Your task to perform on an android device: open a bookmark in the chrome app Image 0: 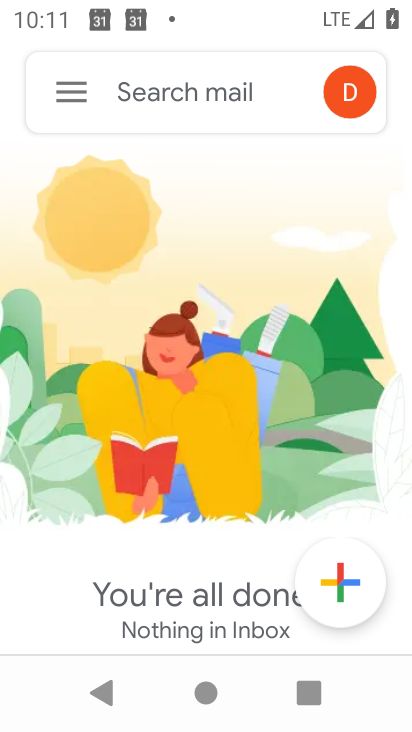
Step 0: press home button
Your task to perform on an android device: open a bookmark in the chrome app Image 1: 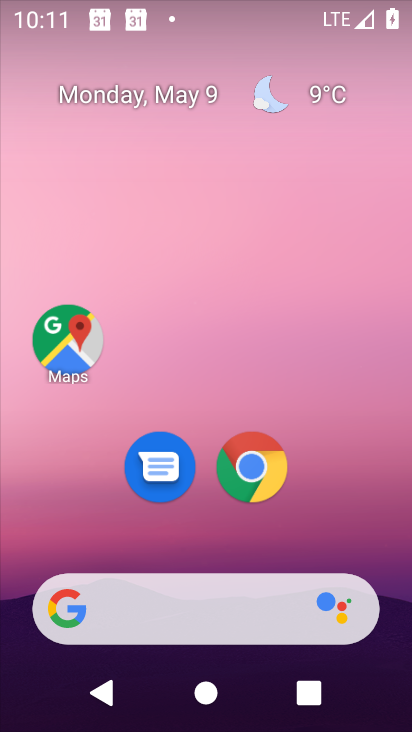
Step 1: click (246, 473)
Your task to perform on an android device: open a bookmark in the chrome app Image 2: 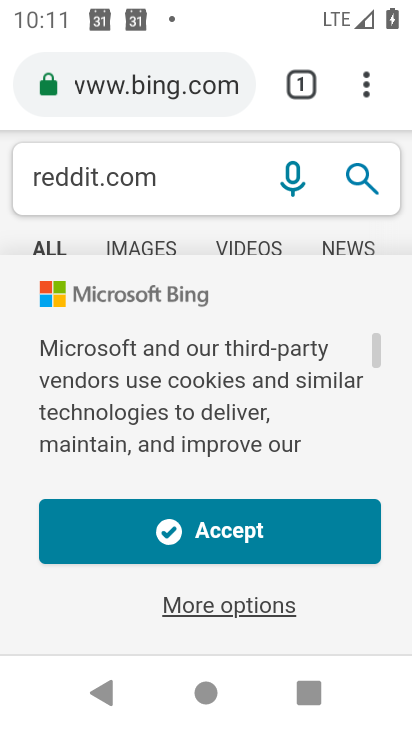
Step 2: drag from (368, 83) to (119, 327)
Your task to perform on an android device: open a bookmark in the chrome app Image 3: 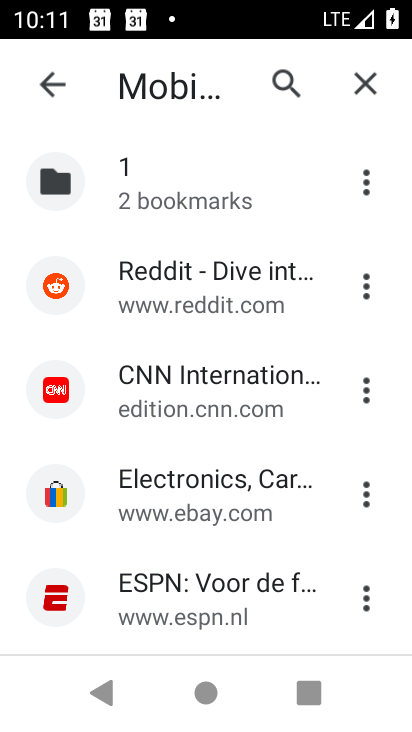
Step 3: click (130, 380)
Your task to perform on an android device: open a bookmark in the chrome app Image 4: 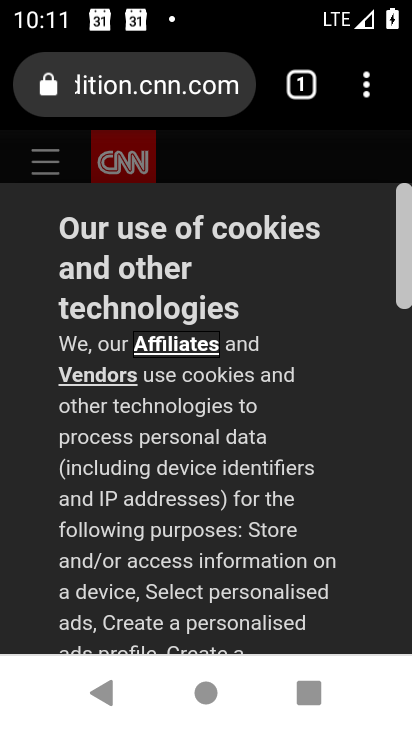
Step 4: task complete